Your task to perform on an android device: Open the web browser Image 0: 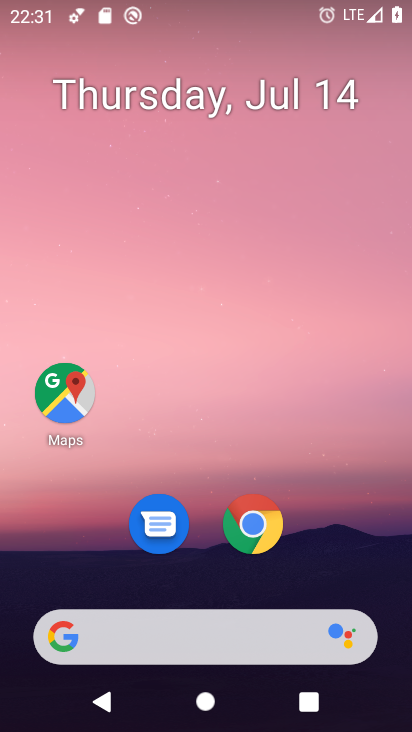
Step 0: click (204, 640)
Your task to perform on an android device: Open the web browser Image 1: 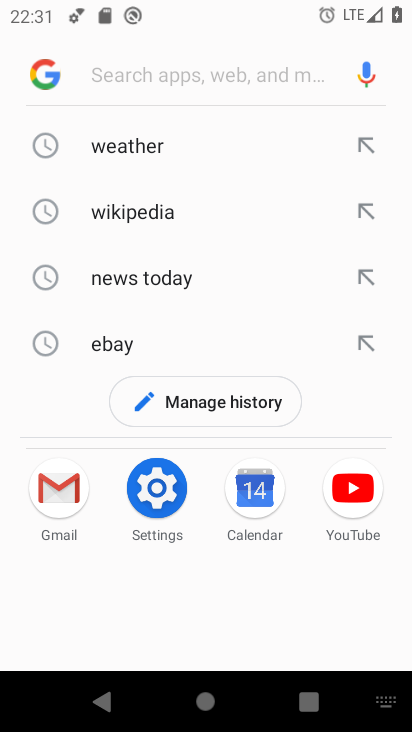
Step 1: task complete